Your task to perform on an android device: change text size in settings app Image 0: 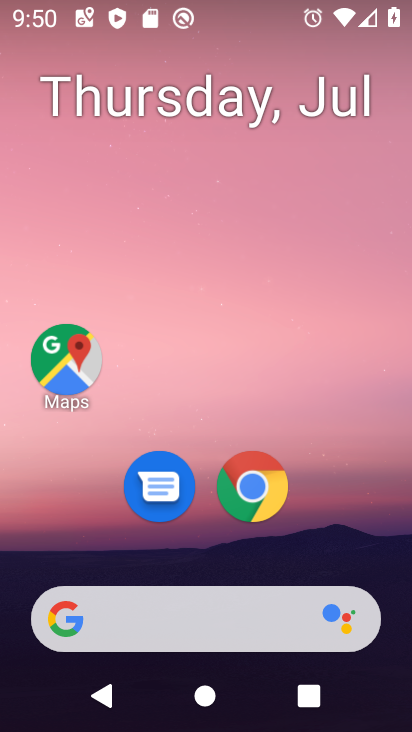
Step 0: drag from (263, 585) to (314, 262)
Your task to perform on an android device: change text size in settings app Image 1: 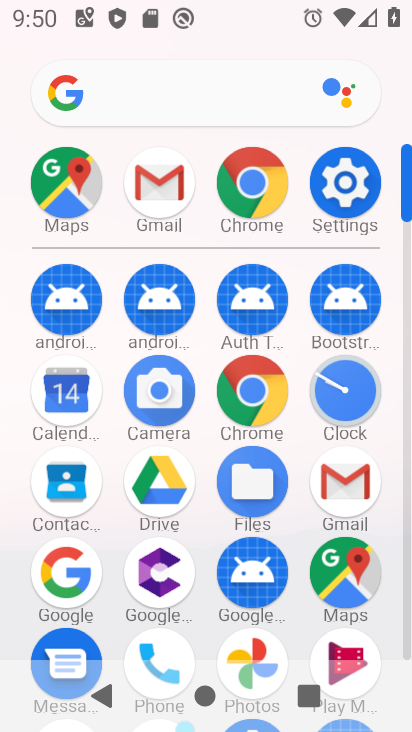
Step 1: click (348, 201)
Your task to perform on an android device: change text size in settings app Image 2: 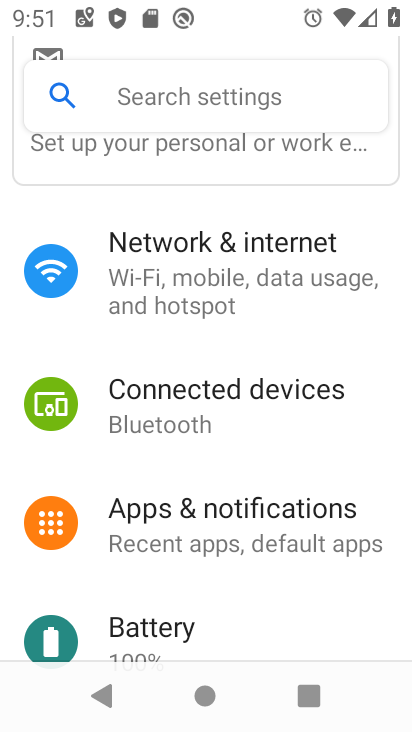
Step 2: drag from (226, 541) to (287, 256)
Your task to perform on an android device: change text size in settings app Image 3: 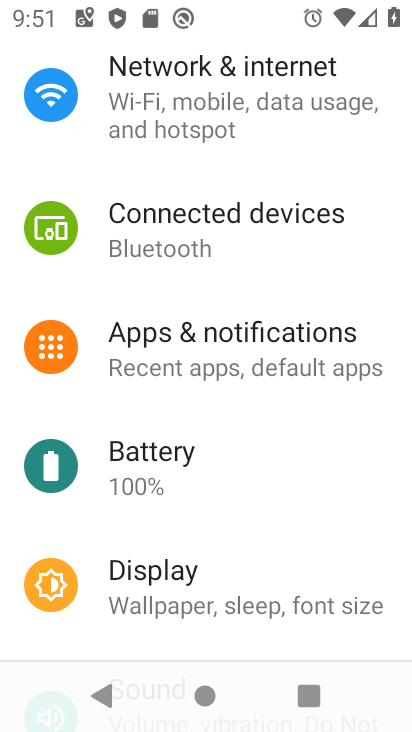
Step 3: click (197, 605)
Your task to perform on an android device: change text size in settings app Image 4: 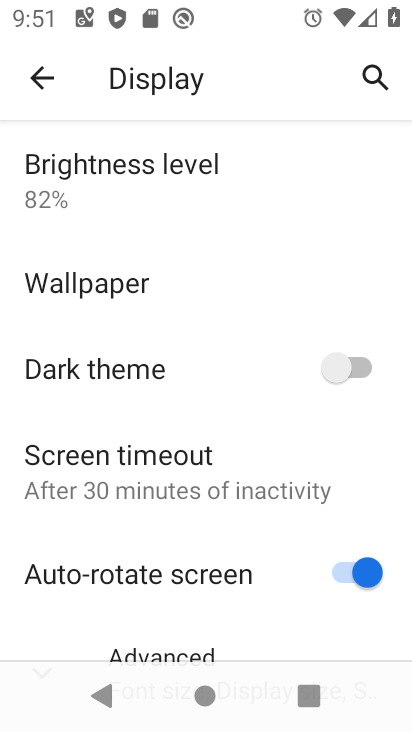
Step 4: drag from (140, 553) to (192, 328)
Your task to perform on an android device: change text size in settings app Image 5: 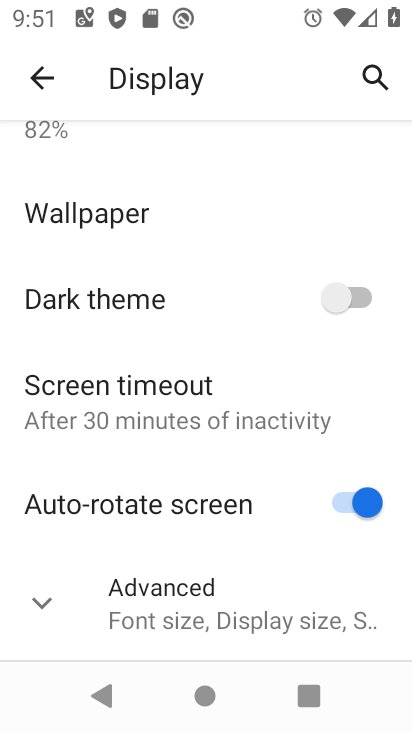
Step 5: click (185, 621)
Your task to perform on an android device: change text size in settings app Image 6: 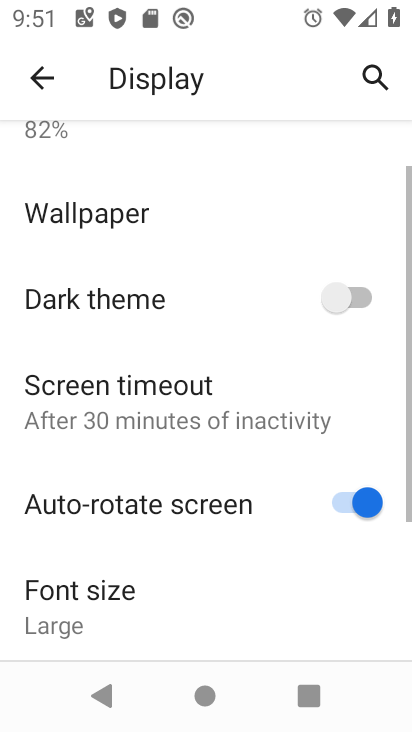
Step 6: drag from (174, 552) to (237, 315)
Your task to perform on an android device: change text size in settings app Image 7: 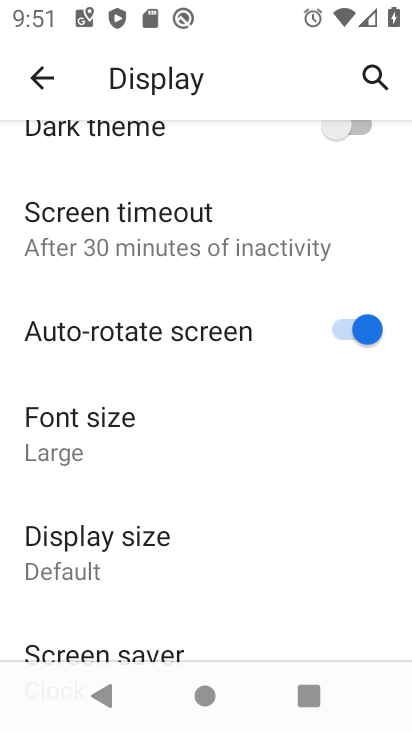
Step 7: click (130, 434)
Your task to perform on an android device: change text size in settings app Image 8: 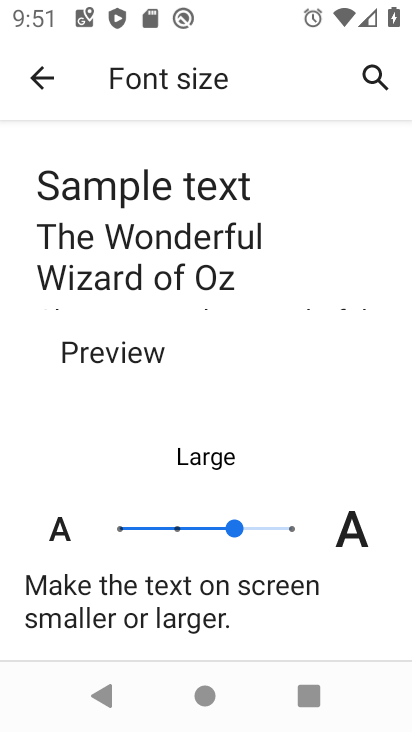
Step 8: click (186, 523)
Your task to perform on an android device: change text size in settings app Image 9: 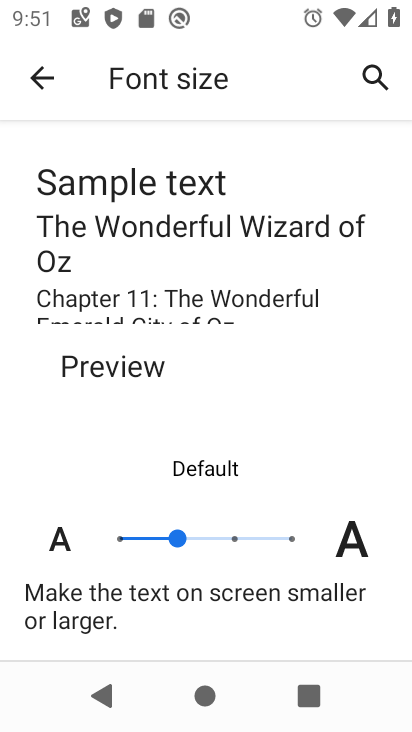
Step 9: task complete